Your task to perform on an android device: turn on location history Image 0: 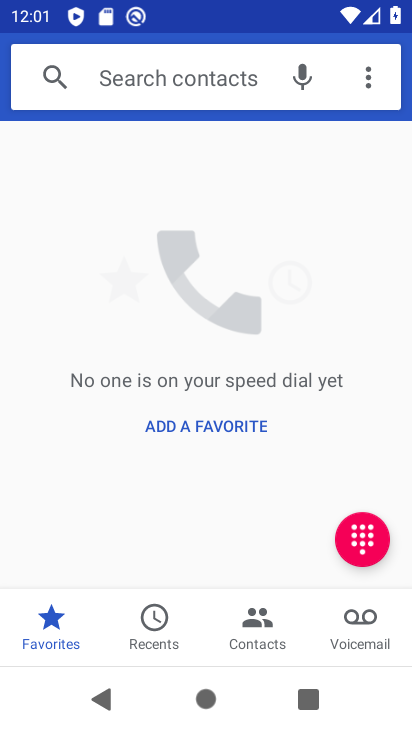
Step 0: press home button
Your task to perform on an android device: turn on location history Image 1: 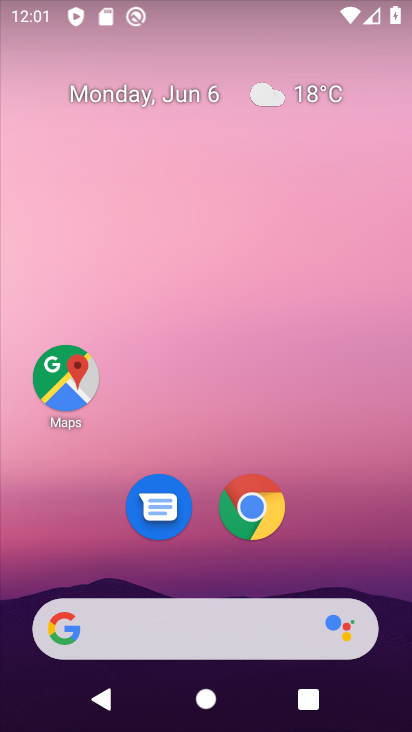
Step 1: drag from (203, 580) to (219, 69)
Your task to perform on an android device: turn on location history Image 2: 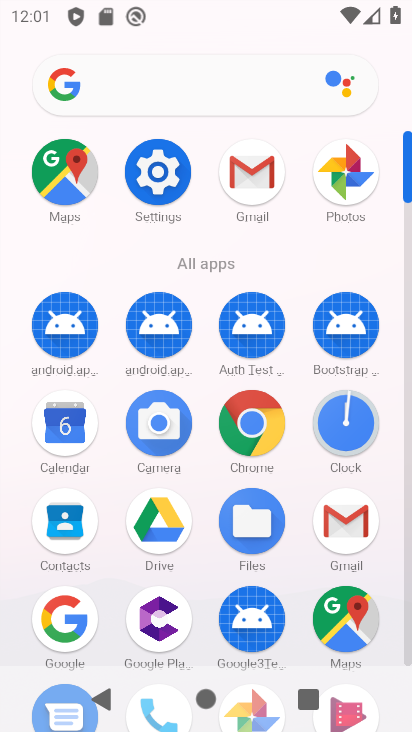
Step 2: click (154, 173)
Your task to perform on an android device: turn on location history Image 3: 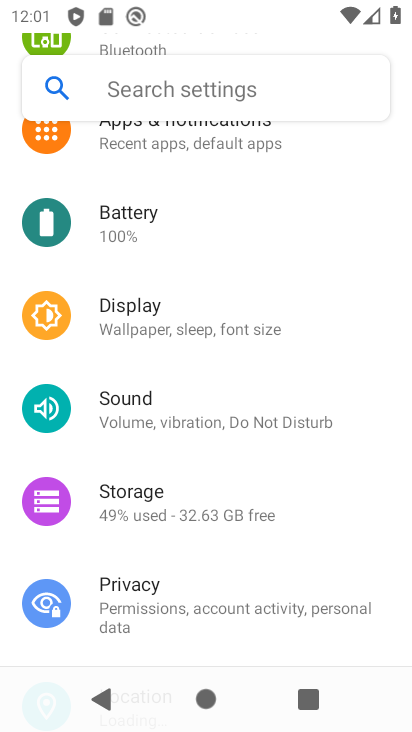
Step 3: drag from (168, 598) to (216, 389)
Your task to perform on an android device: turn on location history Image 4: 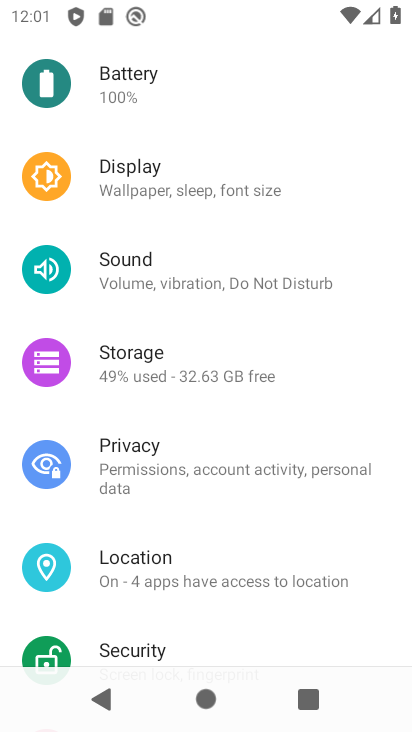
Step 4: click (190, 574)
Your task to perform on an android device: turn on location history Image 5: 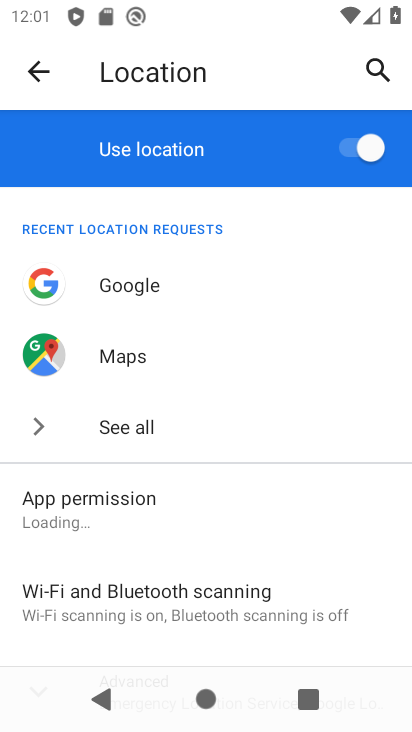
Step 5: drag from (179, 620) to (236, 333)
Your task to perform on an android device: turn on location history Image 6: 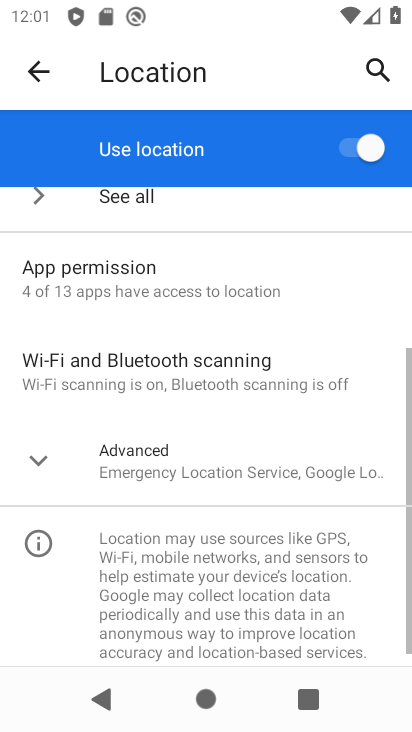
Step 6: click (193, 469)
Your task to perform on an android device: turn on location history Image 7: 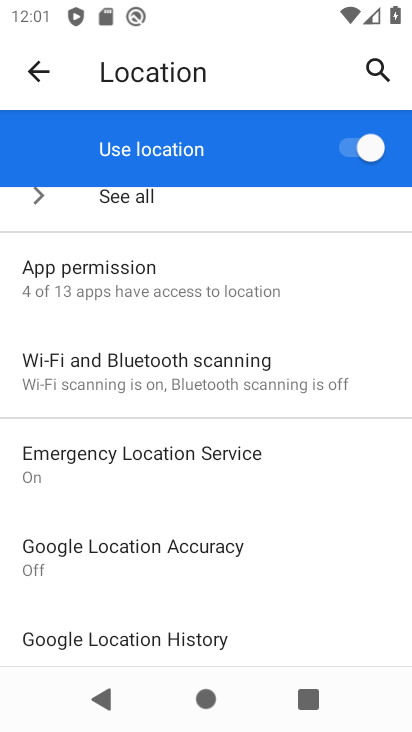
Step 7: click (172, 640)
Your task to perform on an android device: turn on location history Image 8: 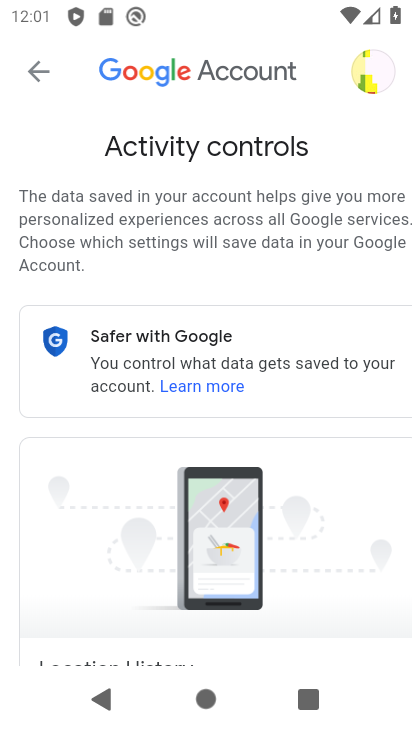
Step 8: task complete